Your task to perform on an android device: Search for alienware area 51 on target.com, select the first entry, and add it to the cart. Image 0: 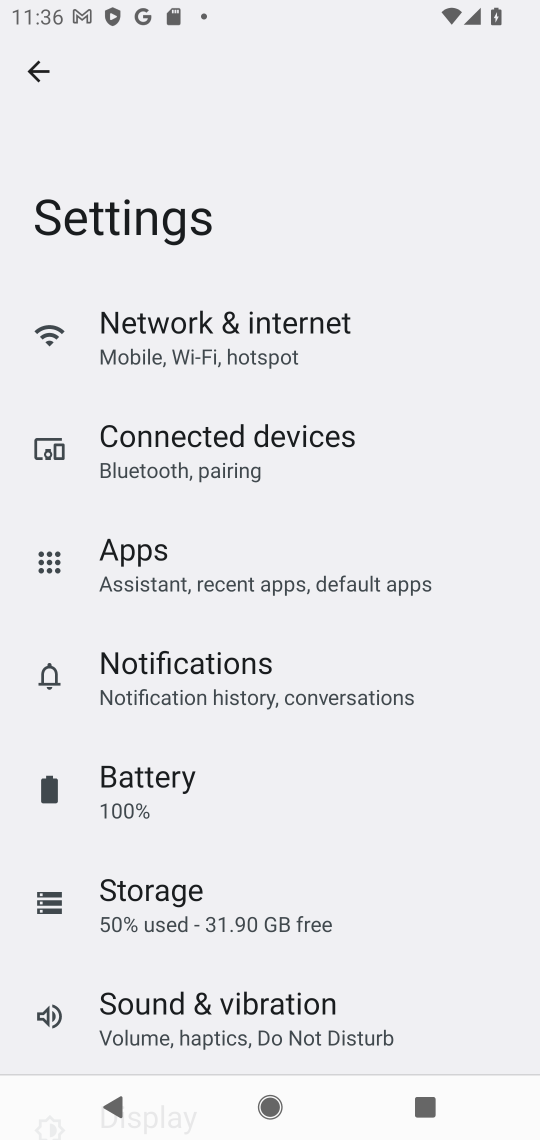
Step 0: press home button
Your task to perform on an android device: Search for alienware area 51 on target.com, select the first entry, and add it to the cart. Image 1: 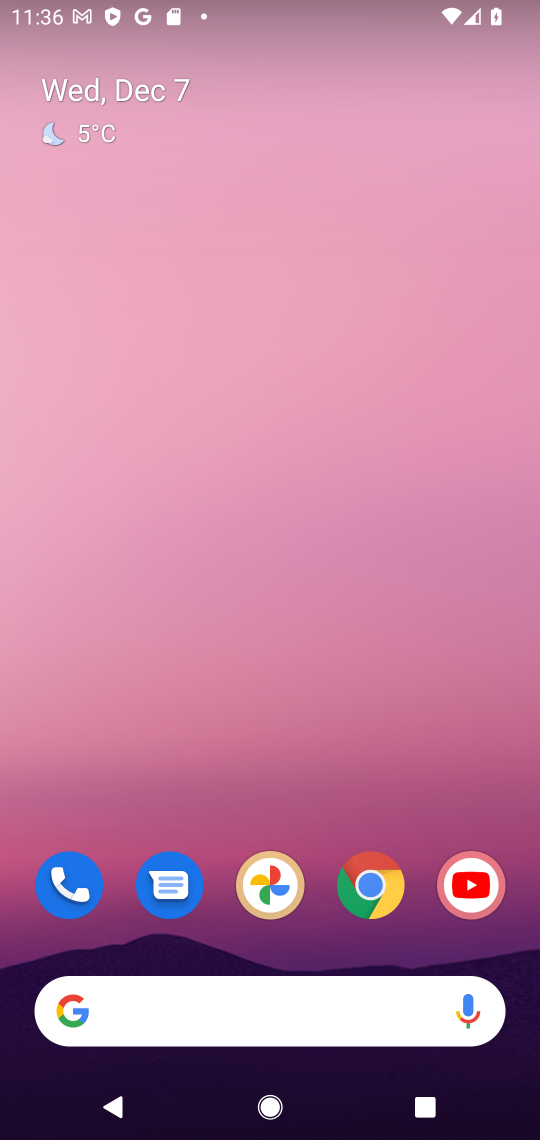
Step 1: click (373, 888)
Your task to perform on an android device: Search for alienware area 51 on target.com, select the first entry, and add it to the cart. Image 2: 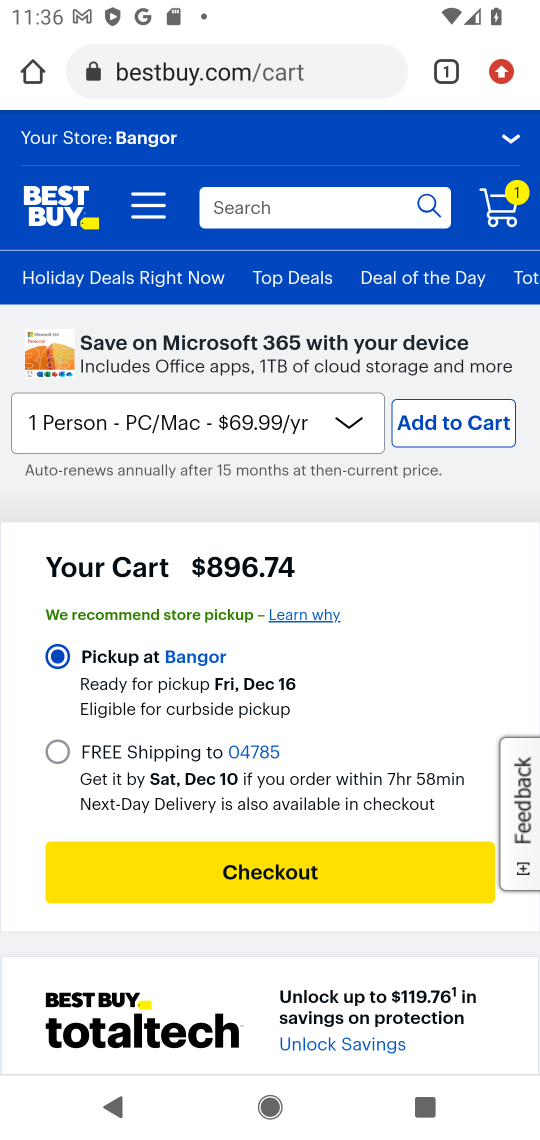
Step 2: click (199, 64)
Your task to perform on an android device: Search for alienware area 51 on target.com, select the first entry, and add it to the cart. Image 3: 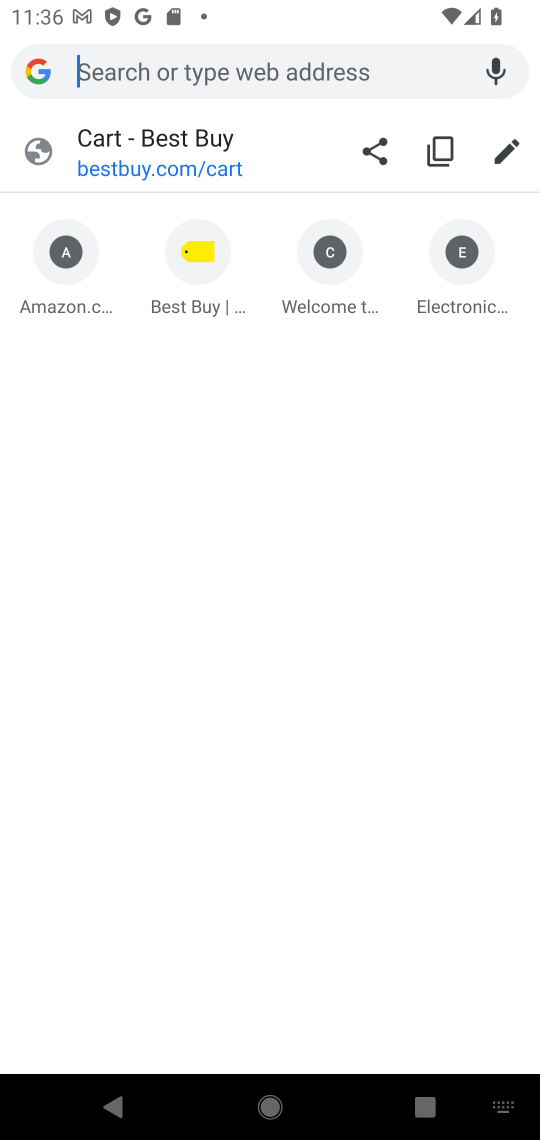
Step 3: type "TARGET"
Your task to perform on an android device: Search for alienware area 51 on target.com, select the first entry, and add it to the cart. Image 4: 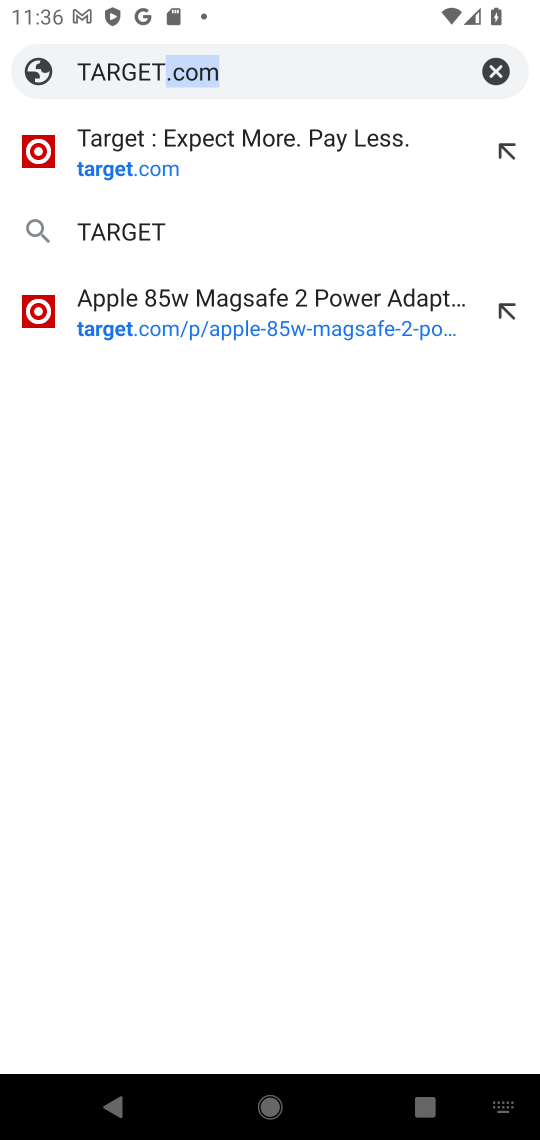
Step 4: click (140, 158)
Your task to perform on an android device: Search for alienware area 51 on target.com, select the first entry, and add it to the cart. Image 5: 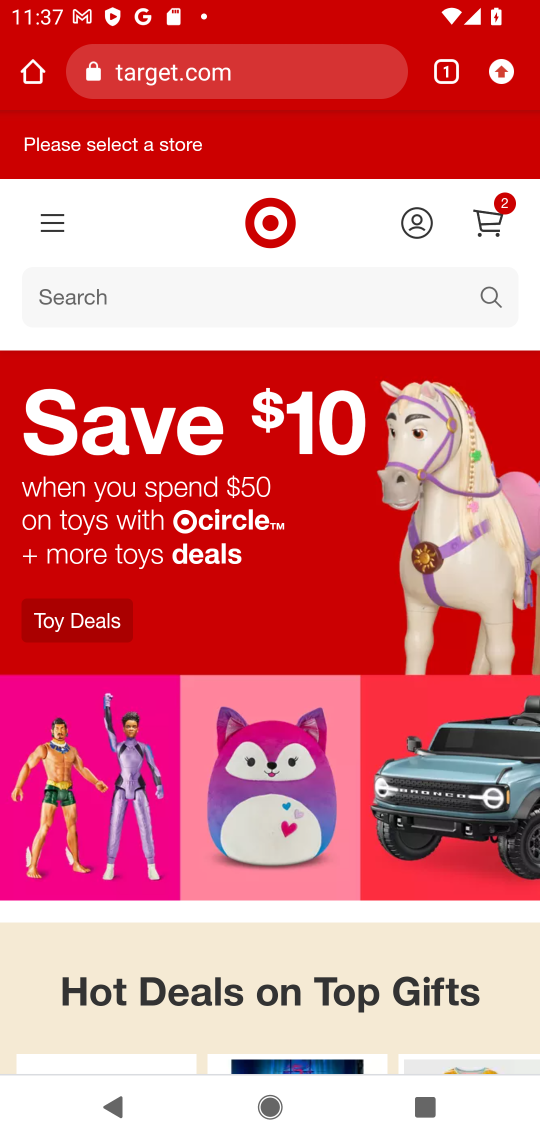
Step 5: click (402, 297)
Your task to perform on an android device: Search for alienware area 51 on target.com, select the first entry, and add it to the cart. Image 6: 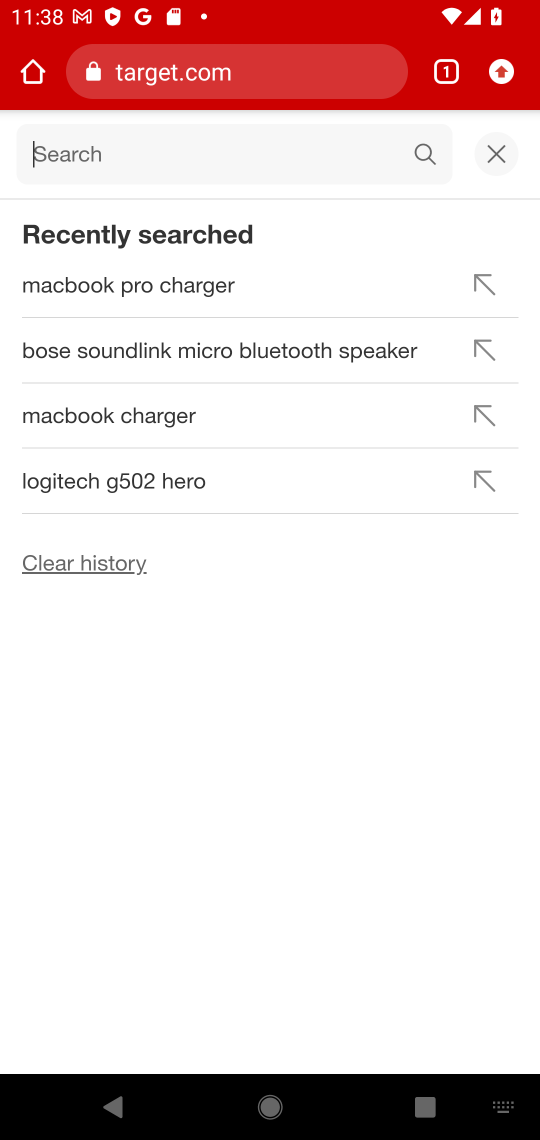
Step 6: type "ALIENWARE AREA 51"
Your task to perform on an android device: Search for alienware area 51 on target.com, select the first entry, and add it to the cart. Image 7: 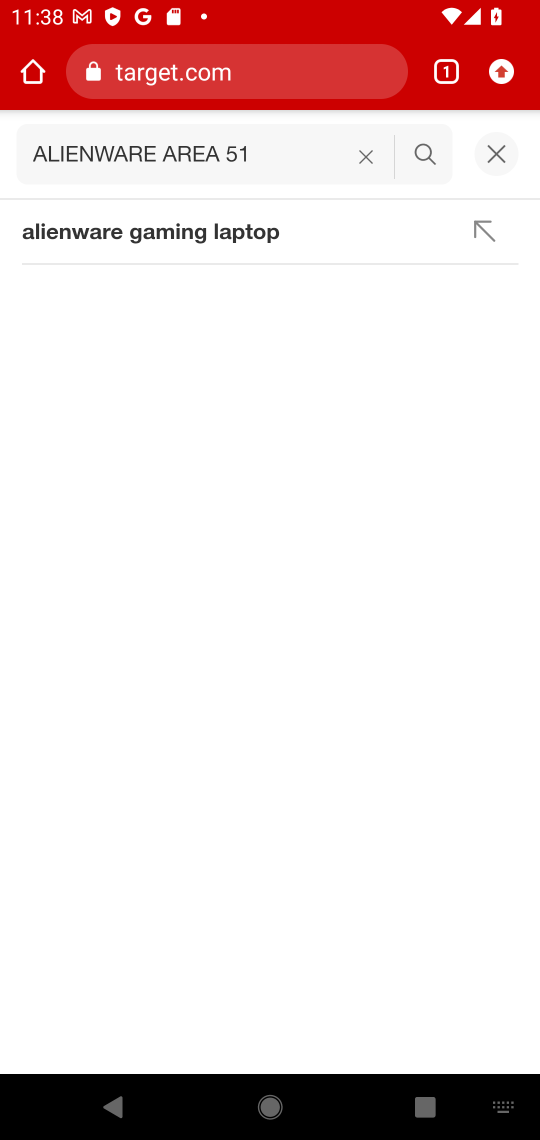
Step 7: click (197, 234)
Your task to perform on an android device: Search for alienware area 51 on target.com, select the first entry, and add it to the cart. Image 8: 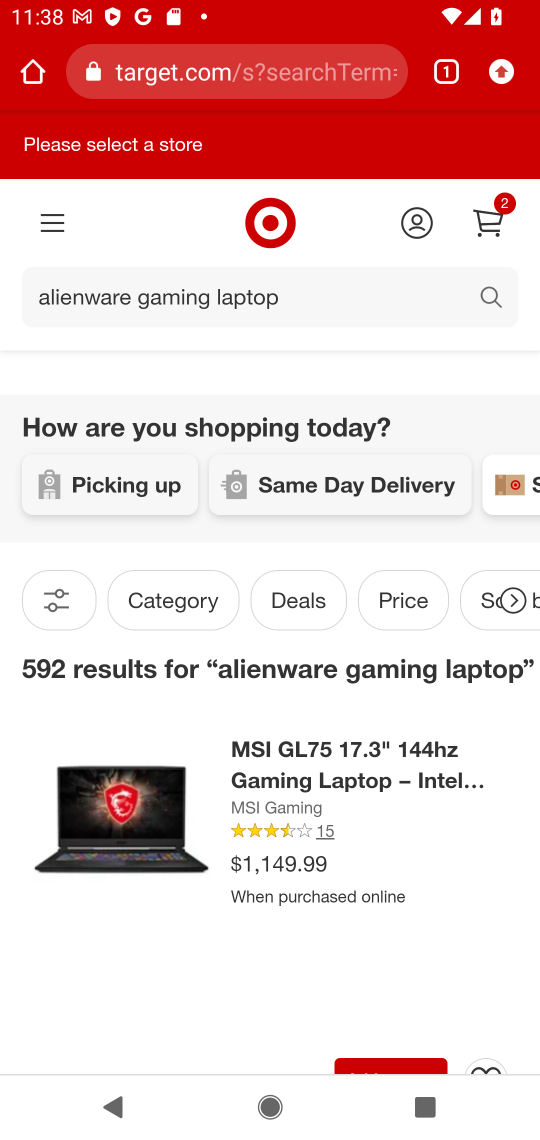
Step 8: click (162, 860)
Your task to perform on an android device: Search for alienware area 51 on target.com, select the first entry, and add it to the cart. Image 9: 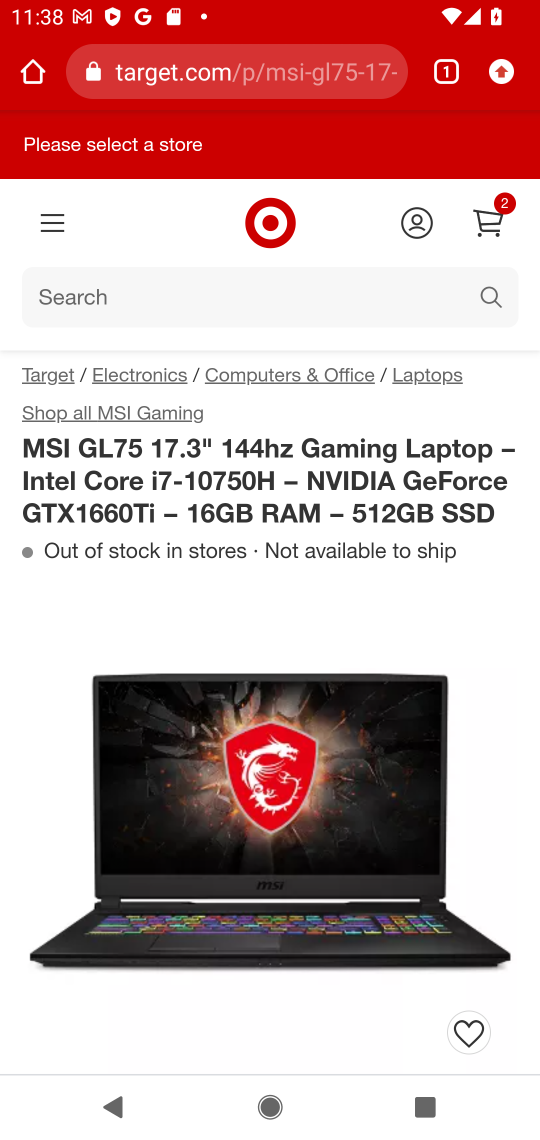
Step 9: drag from (335, 928) to (313, 357)
Your task to perform on an android device: Search for alienware area 51 on target.com, select the first entry, and add it to the cart. Image 10: 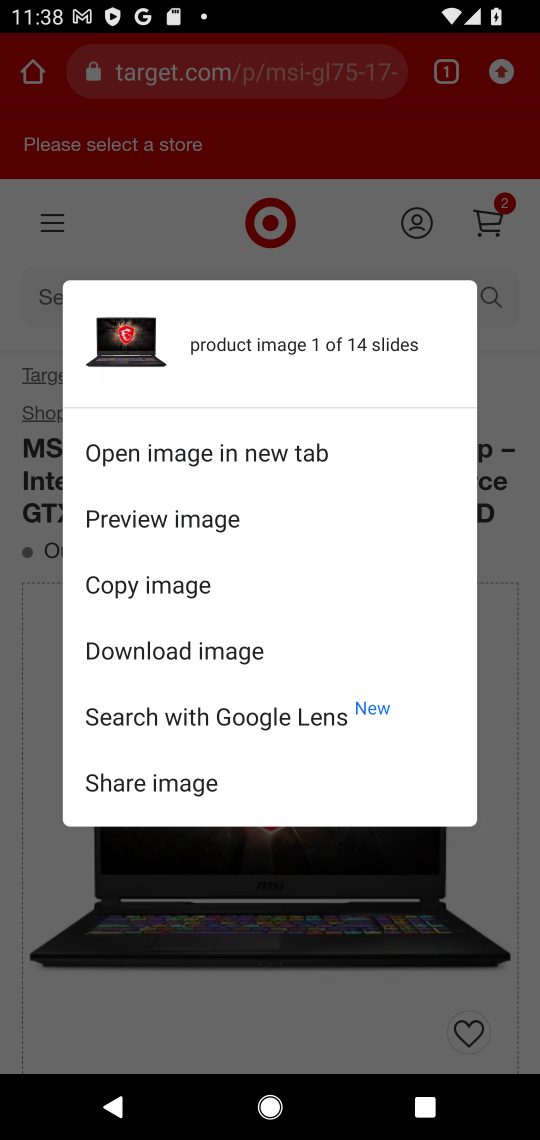
Step 10: click (367, 967)
Your task to perform on an android device: Search for alienware area 51 on target.com, select the first entry, and add it to the cart. Image 11: 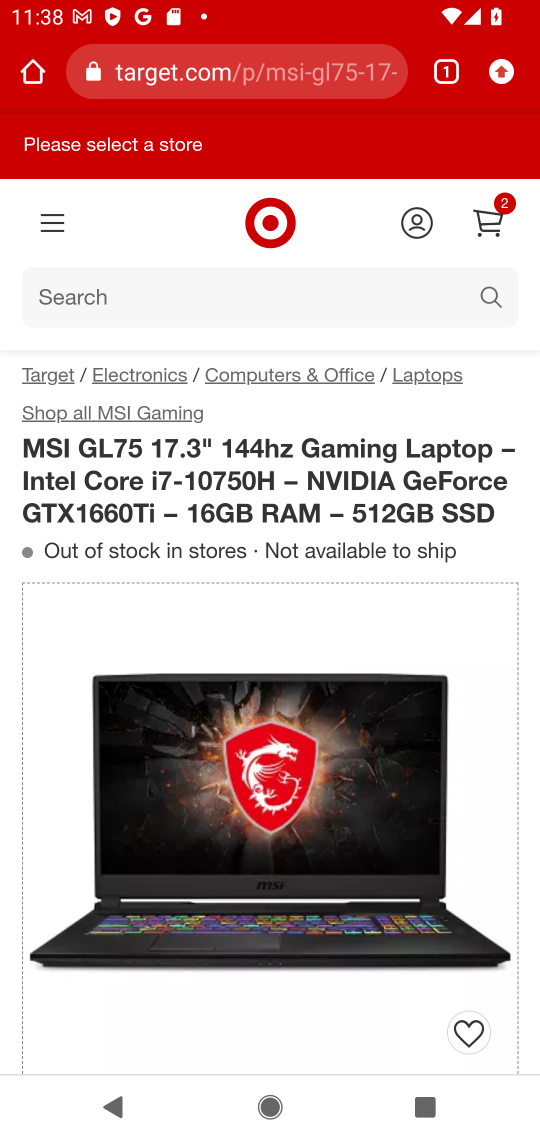
Step 11: drag from (367, 967) to (266, 290)
Your task to perform on an android device: Search for alienware area 51 on target.com, select the first entry, and add it to the cart. Image 12: 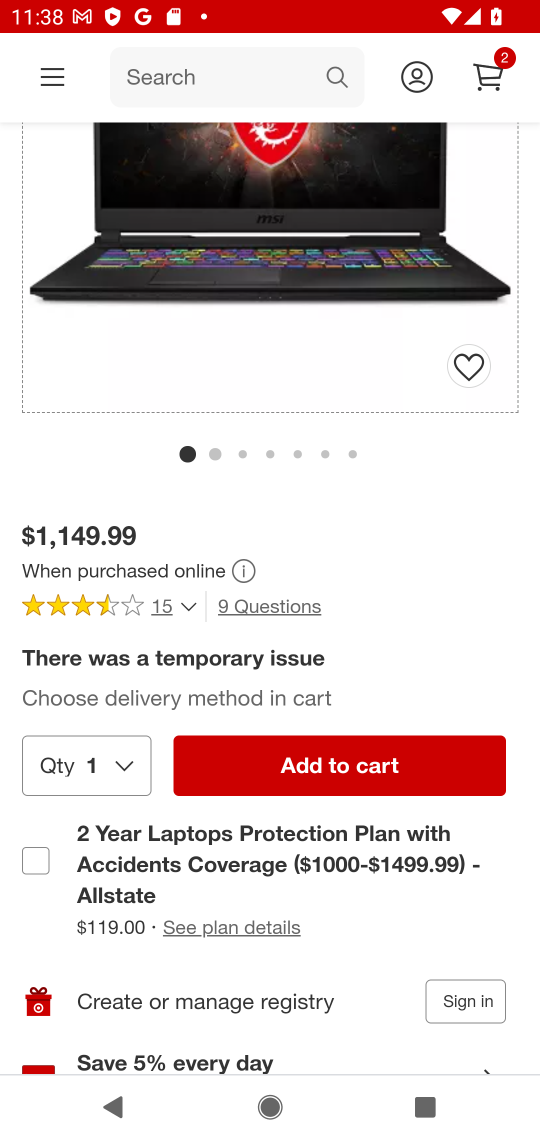
Step 12: click (345, 757)
Your task to perform on an android device: Search for alienware area 51 on target.com, select the first entry, and add it to the cart. Image 13: 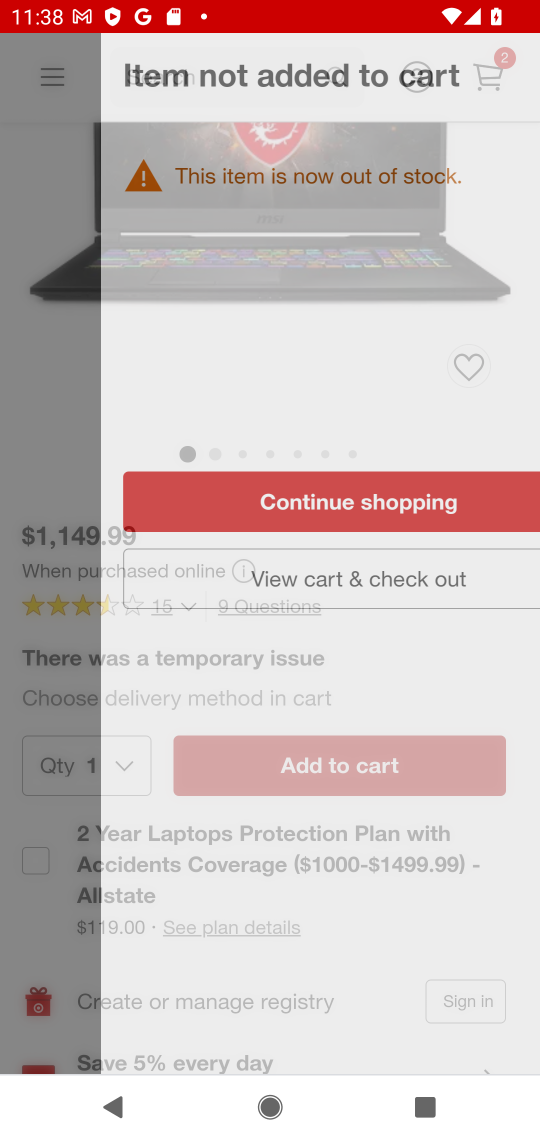
Step 13: task complete